Your task to perform on an android device: Set an alarm for 10am Image 0: 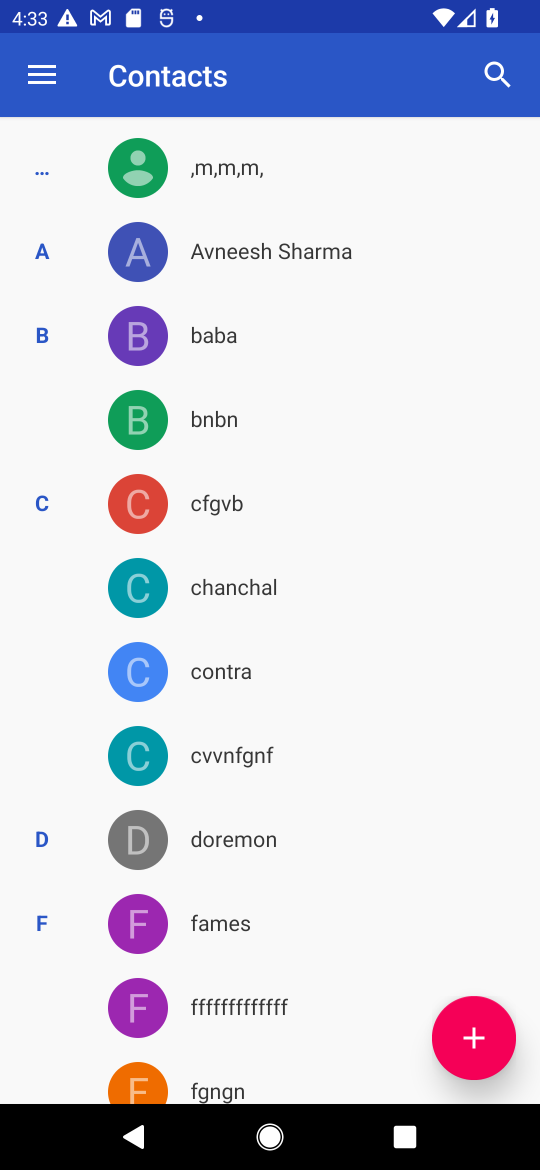
Step 0: press home button
Your task to perform on an android device: Set an alarm for 10am Image 1: 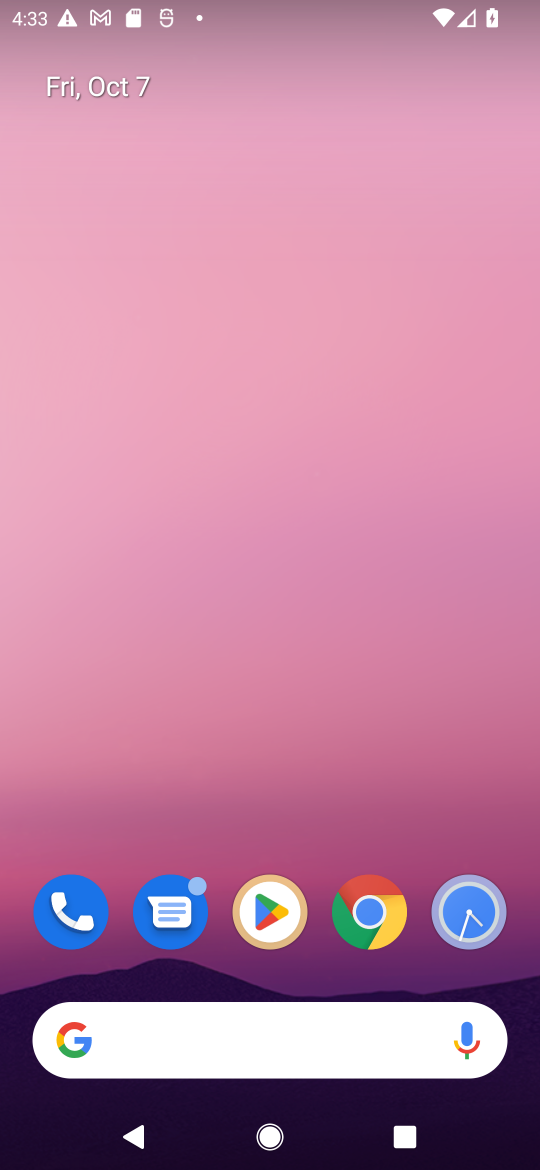
Step 1: drag from (189, 883) to (199, 380)
Your task to perform on an android device: Set an alarm for 10am Image 2: 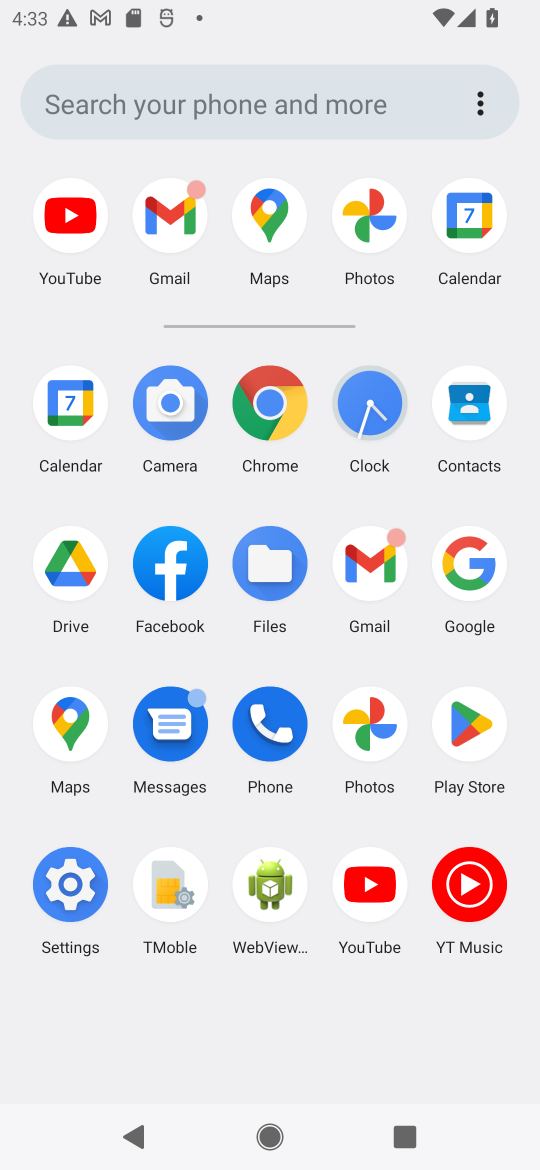
Step 2: click (365, 402)
Your task to perform on an android device: Set an alarm for 10am Image 3: 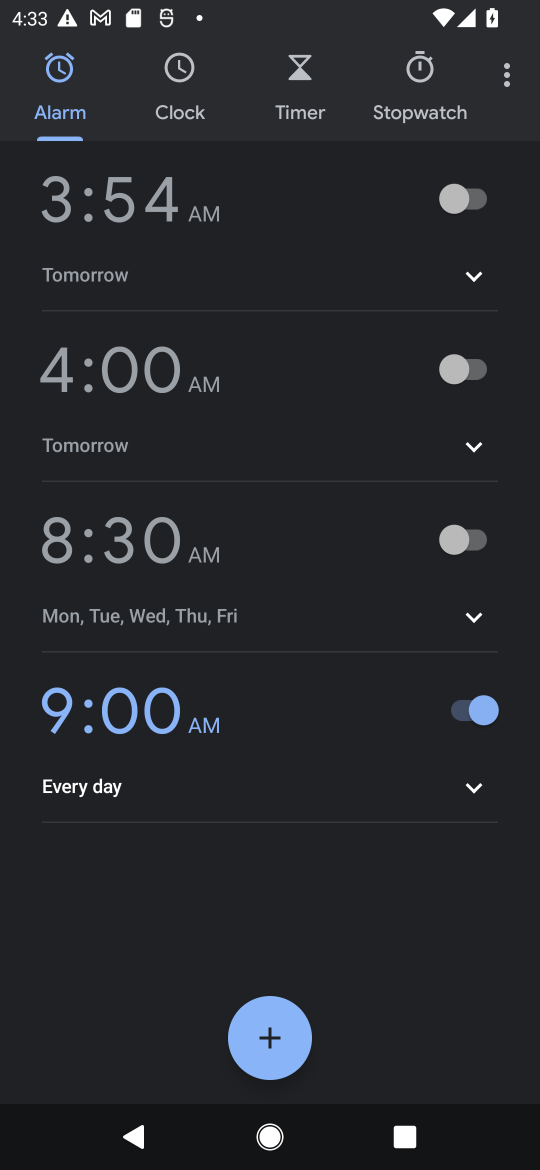
Step 3: click (261, 1023)
Your task to perform on an android device: Set an alarm for 10am Image 4: 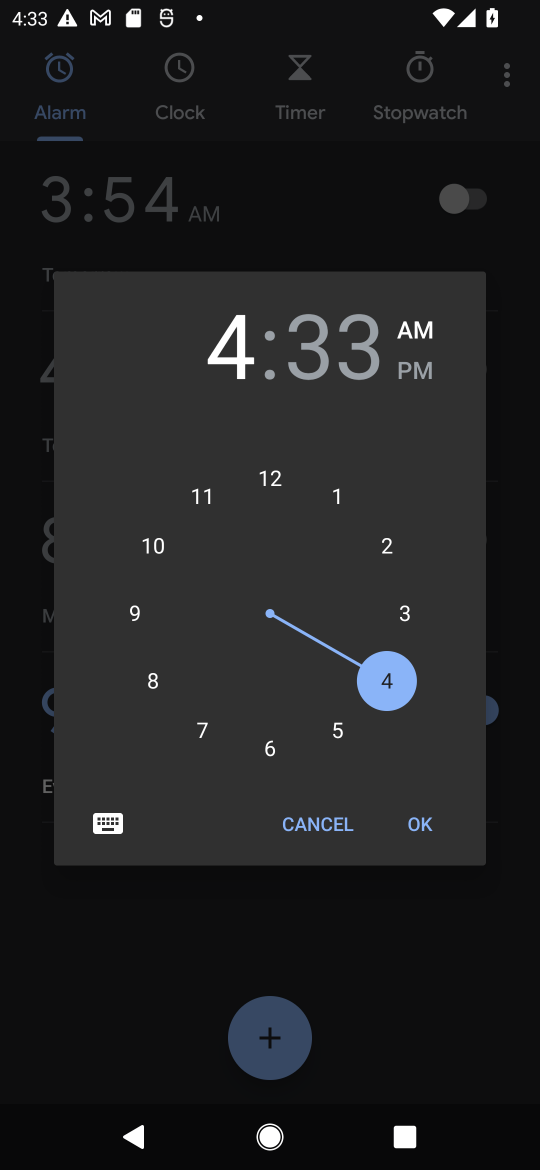
Step 4: click (149, 556)
Your task to perform on an android device: Set an alarm for 10am Image 5: 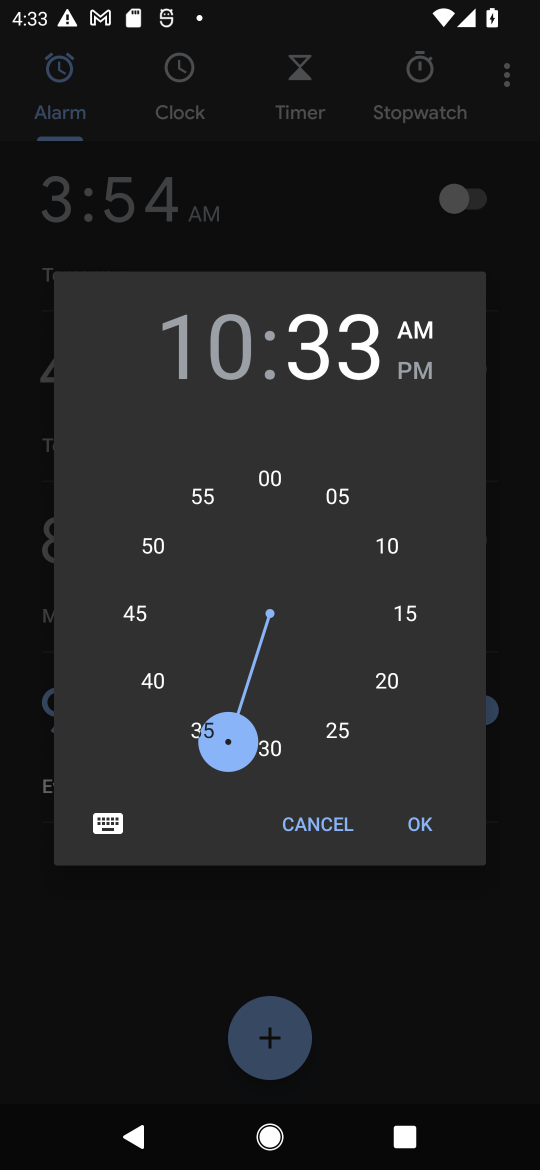
Step 5: drag from (225, 739) to (271, 436)
Your task to perform on an android device: Set an alarm for 10am Image 6: 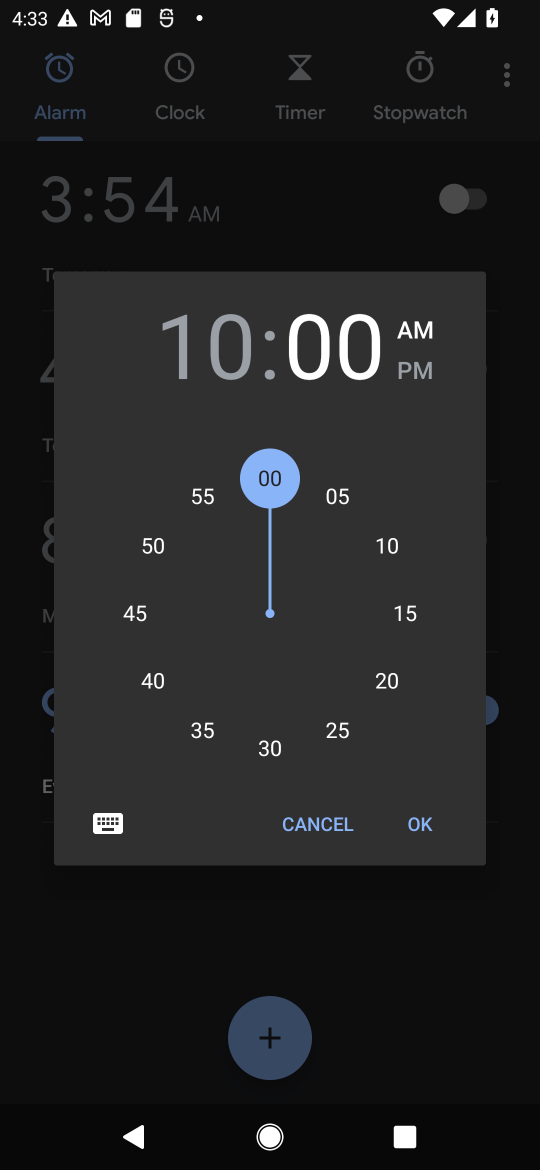
Step 6: click (271, 461)
Your task to perform on an android device: Set an alarm for 10am Image 7: 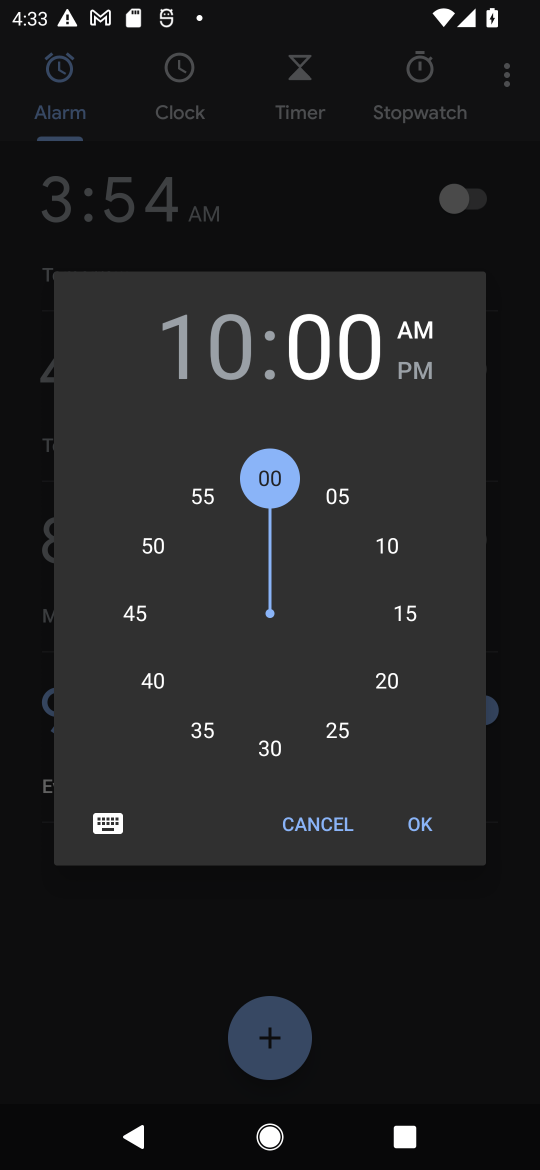
Step 7: click (432, 821)
Your task to perform on an android device: Set an alarm for 10am Image 8: 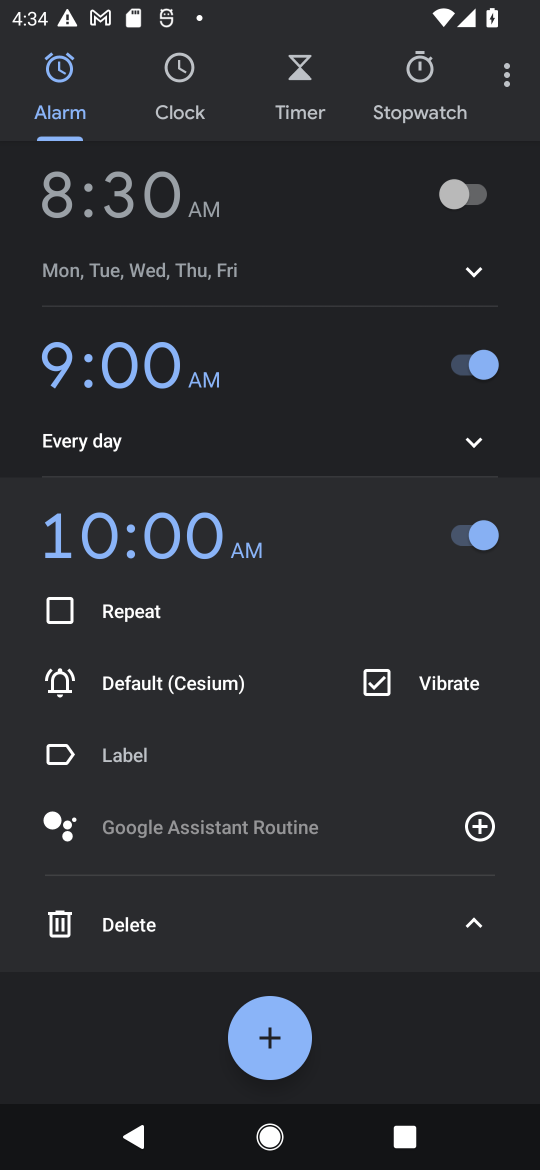
Step 8: task complete